Your task to perform on an android device: toggle notification dots Image 0: 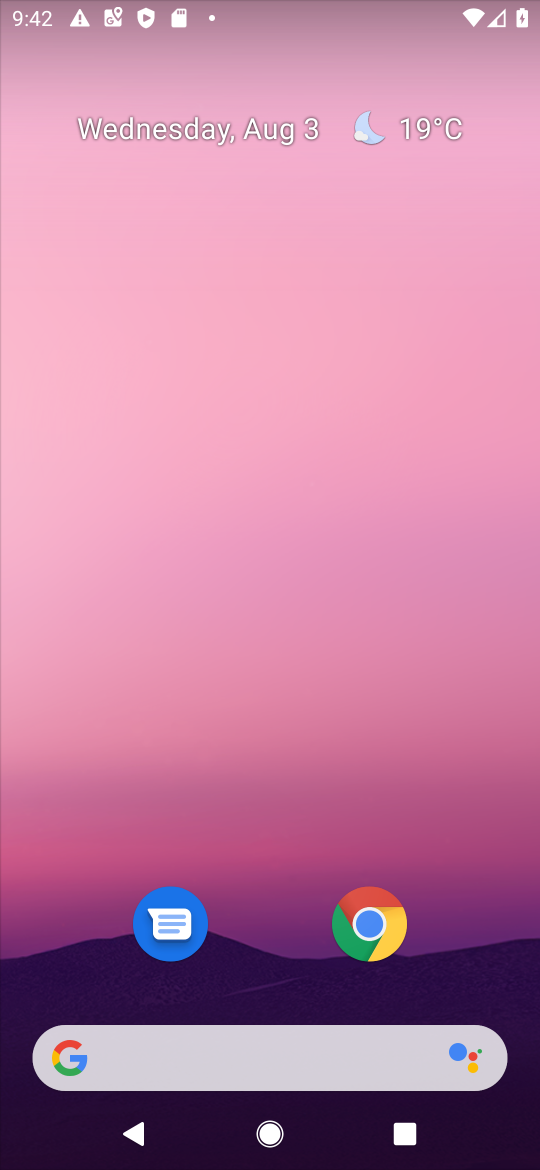
Step 0: press home button
Your task to perform on an android device: toggle notification dots Image 1: 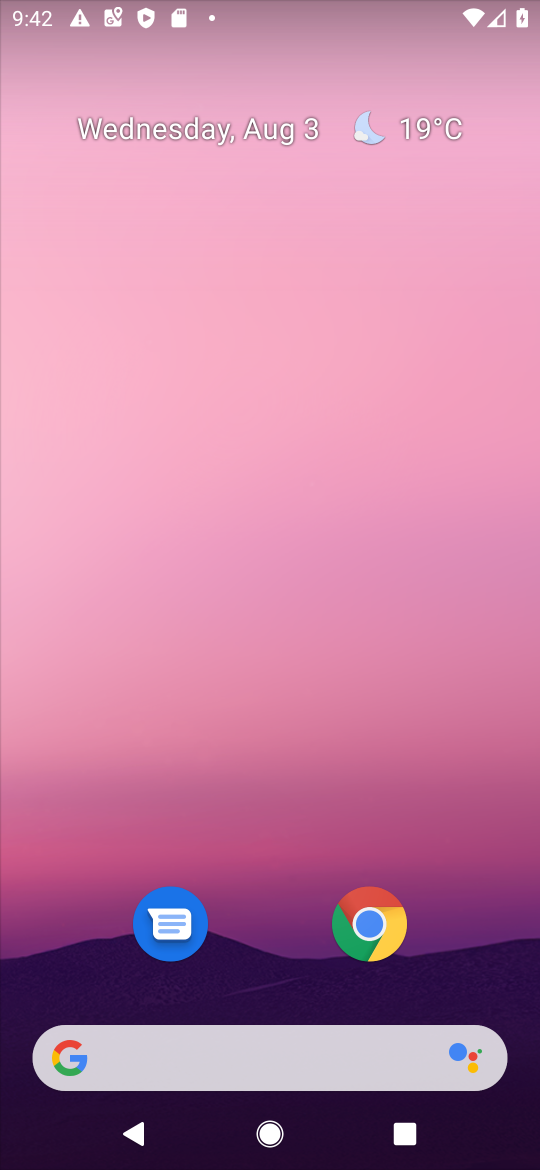
Step 1: drag from (277, 978) to (336, 53)
Your task to perform on an android device: toggle notification dots Image 2: 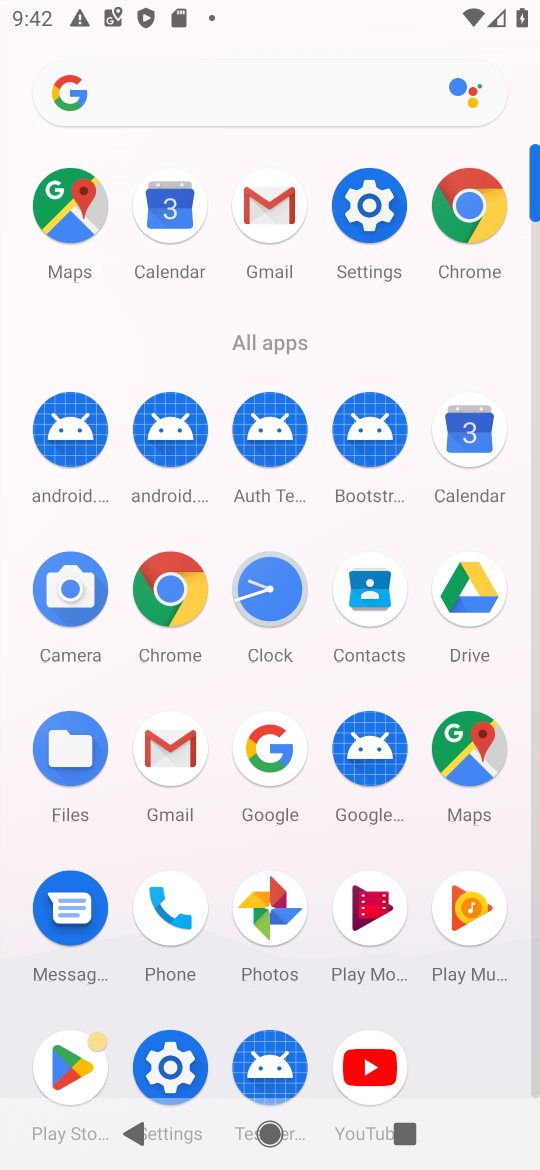
Step 2: click (363, 197)
Your task to perform on an android device: toggle notification dots Image 3: 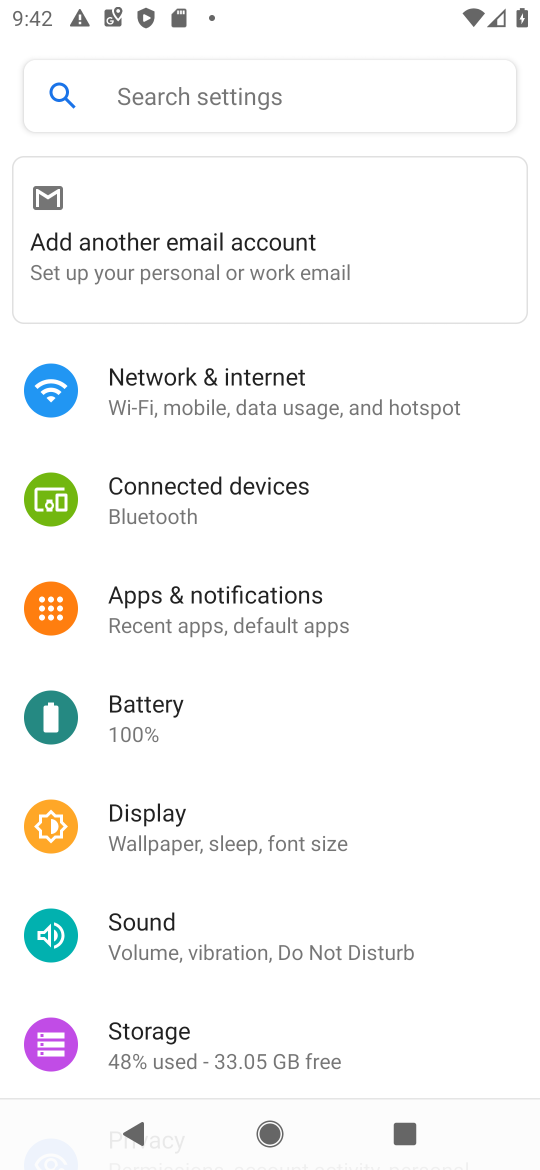
Step 3: click (371, 604)
Your task to perform on an android device: toggle notification dots Image 4: 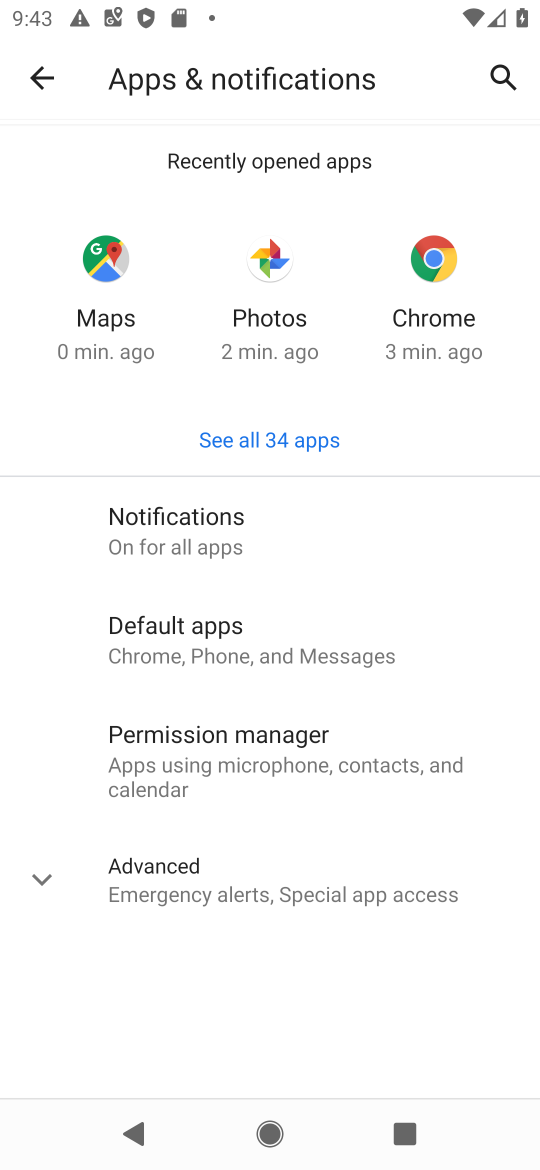
Step 4: click (275, 527)
Your task to perform on an android device: toggle notification dots Image 5: 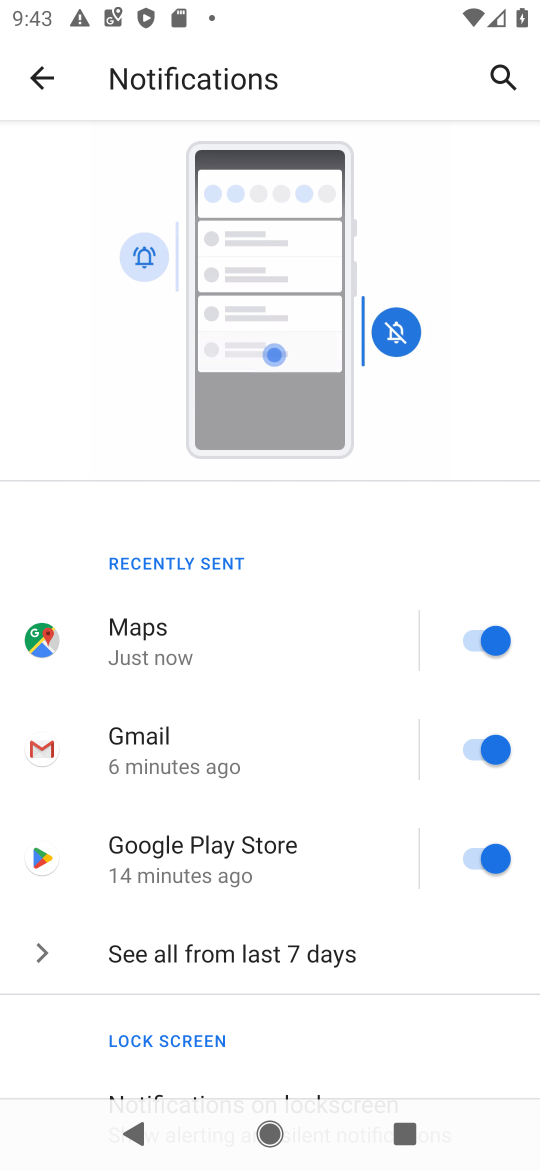
Step 5: drag from (322, 1021) to (337, 301)
Your task to perform on an android device: toggle notification dots Image 6: 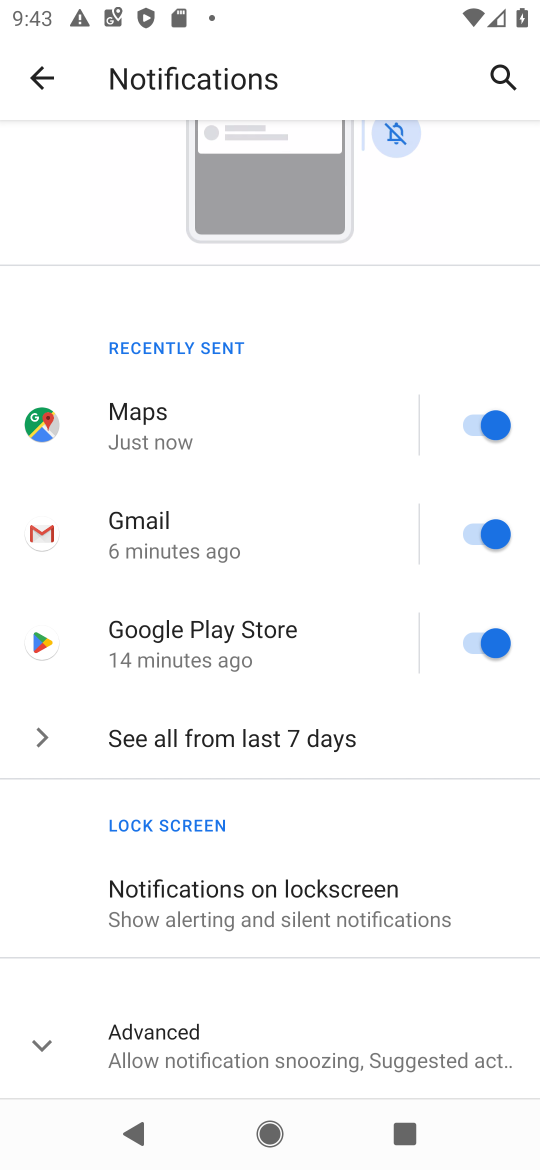
Step 6: click (39, 1034)
Your task to perform on an android device: toggle notification dots Image 7: 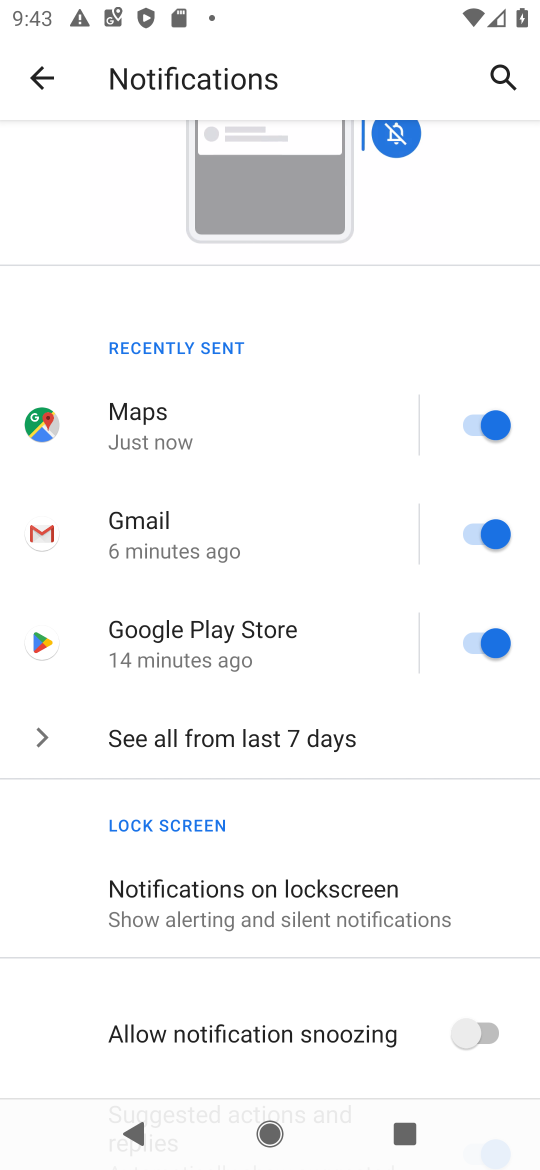
Step 7: drag from (280, 975) to (354, 187)
Your task to perform on an android device: toggle notification dots Image 8: 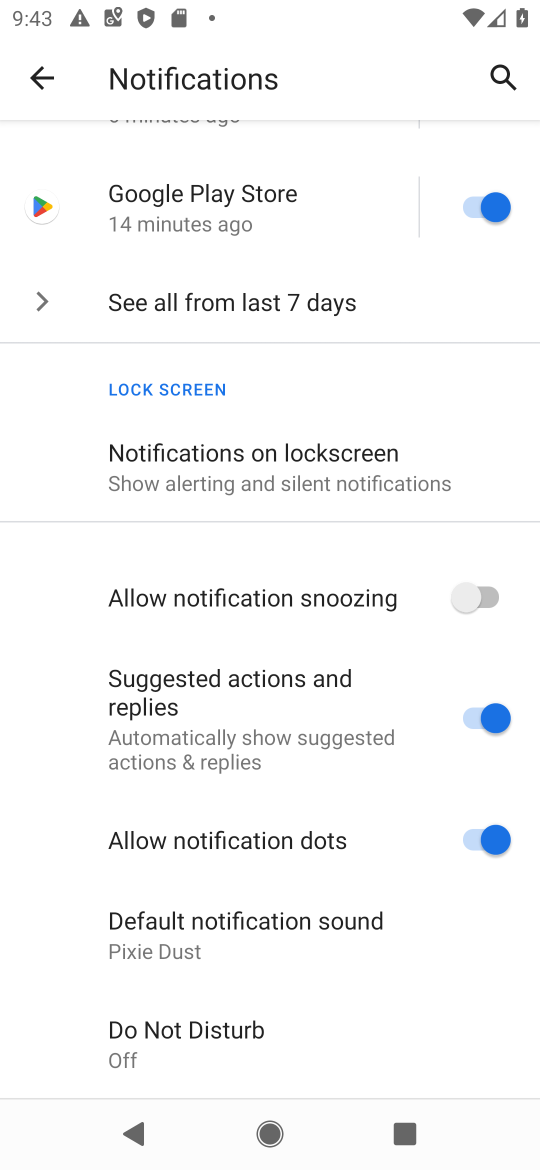
Step 8: click (478, 833)
Your task to perform on an android device: toggle notification dots Image 9: 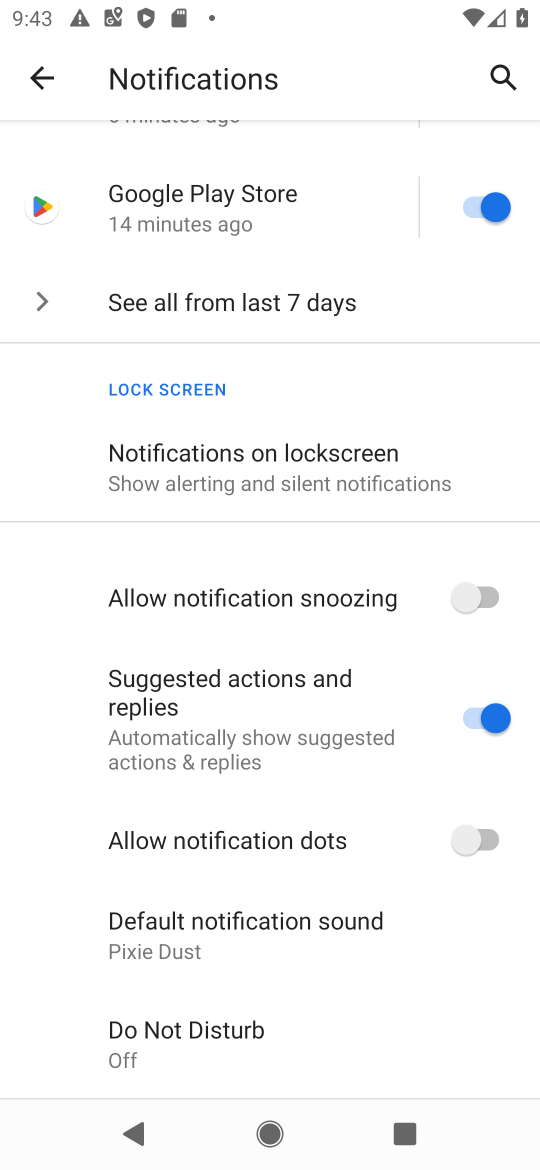
Step 9: task complete